Your task to perform on an android device: Open calendar and show me the third week of next month Image 0: 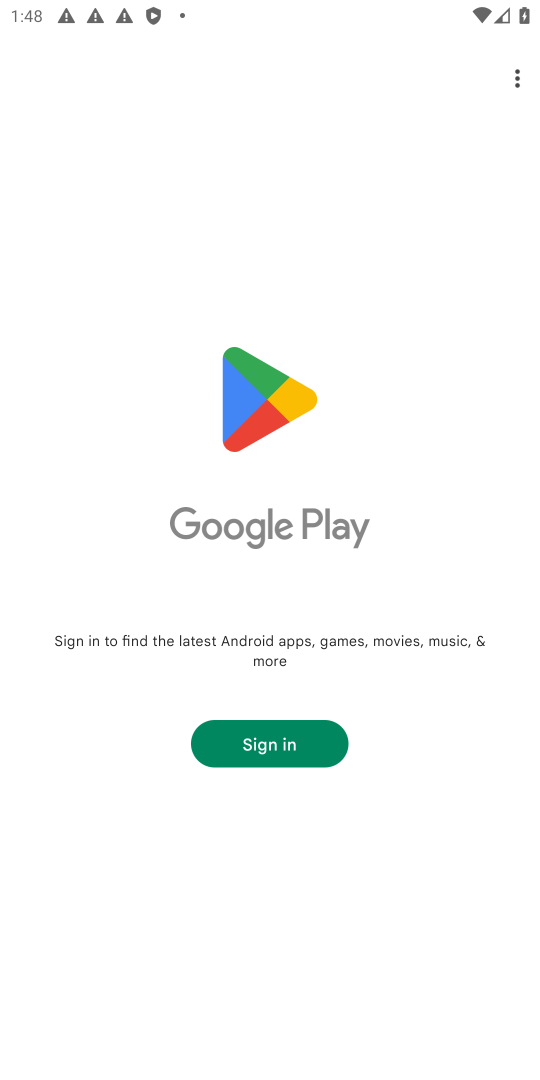
Step 0: press back button
Your task to perform on an android device: Open calendar and show me the third week of next month Image 1: 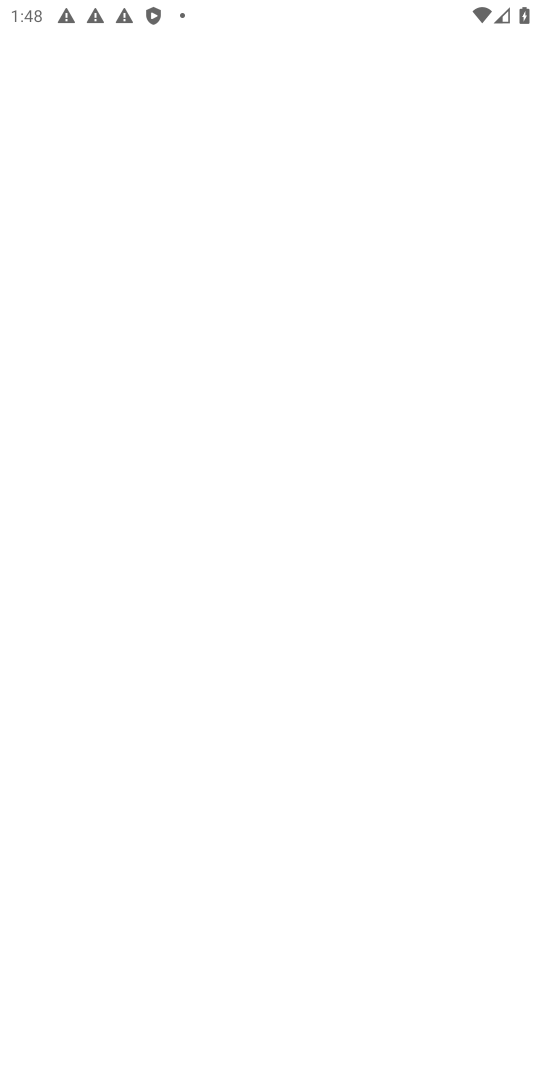
Step 1: press back button
Your task to perform on an android device: Open calendar and show me the third week of next month Image 2: 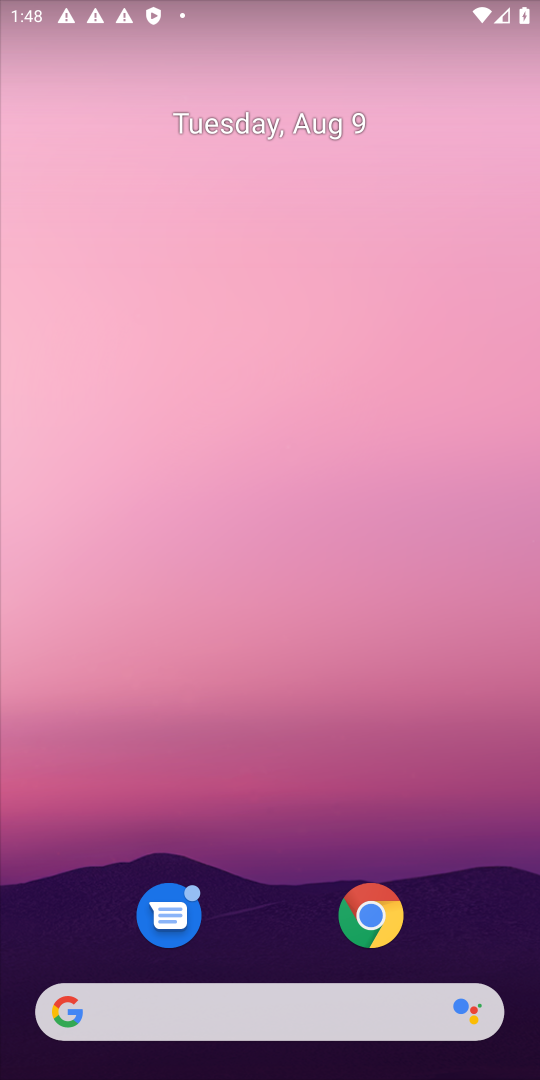
Step 2: drag from (217, 403) to (292, 215)
Your task to perform on an android device: Open calendar and show me the third week of next month Image 3: 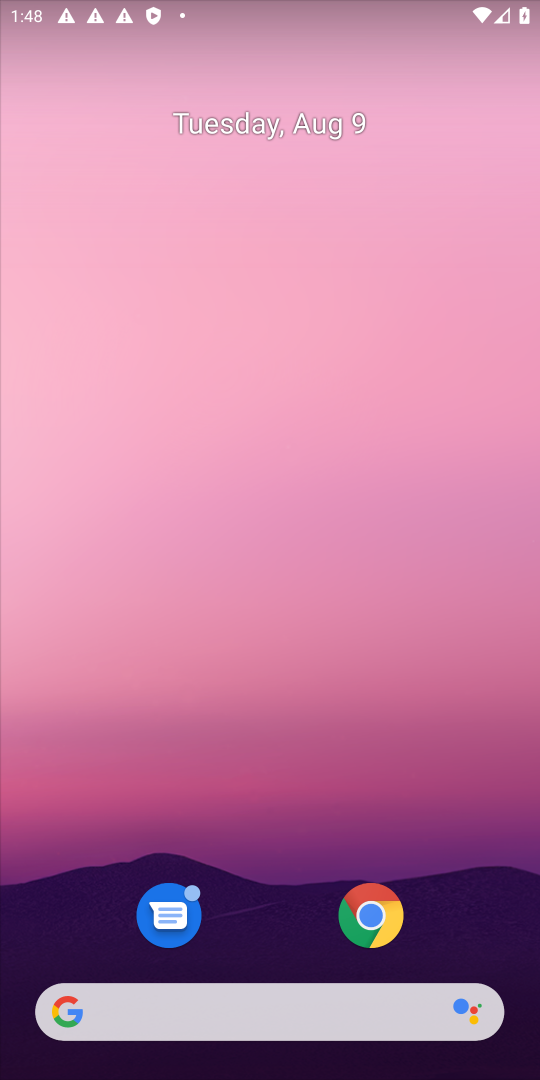
Step 3: drag from (210, 984) to (213, 237)
Your task to perform on an android device: Open calendar and show me the third week of next month Image 4: 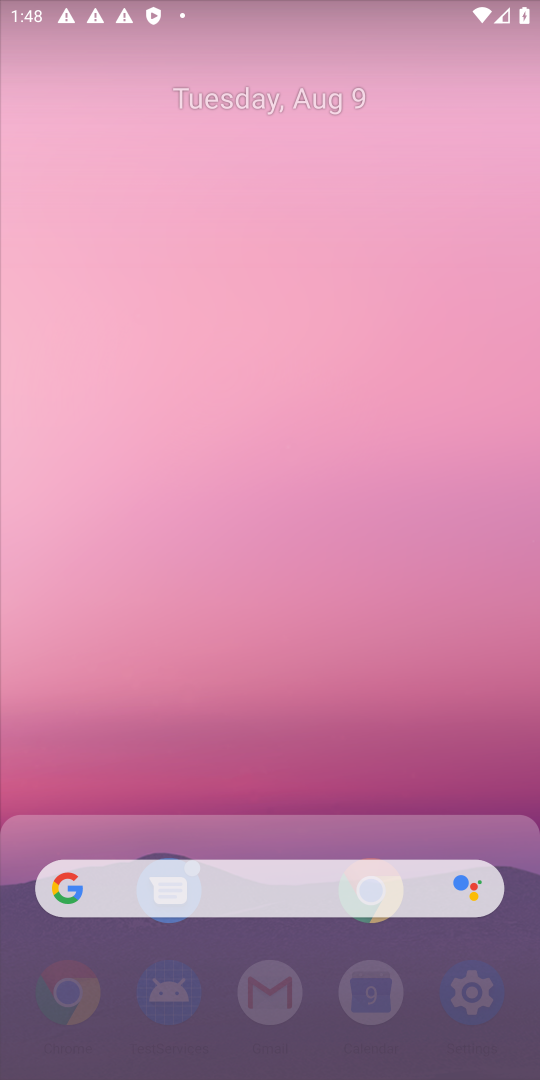
Step 4: drag from (247, 612) to (247, 256)
Your task to perform on an android device: Open calendar and show me the third week of next month Image 5: 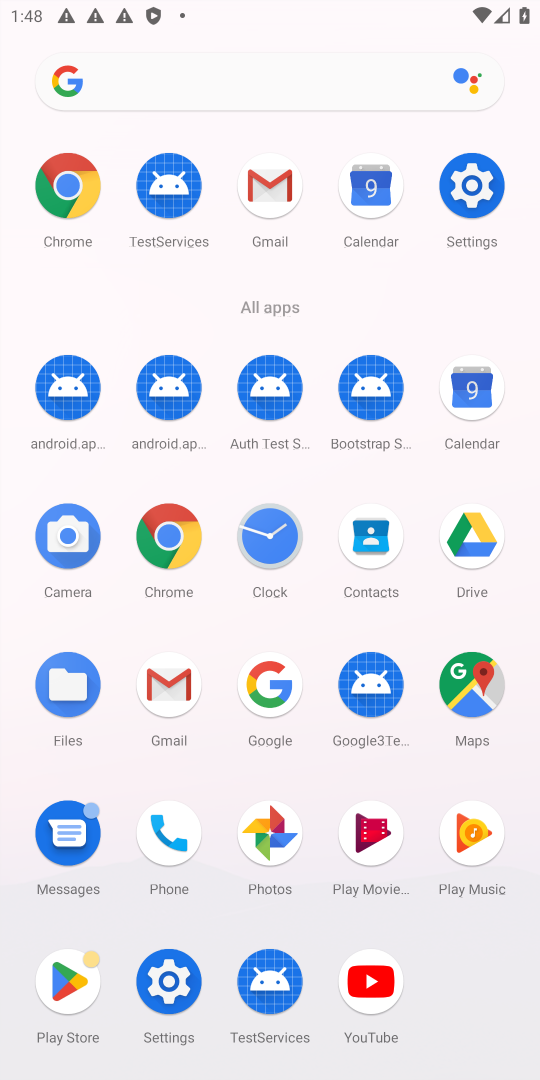
Step 5: click (480, 388)
Your task to perform on an android device: Open calendar and show me the third week of next month Image 6: 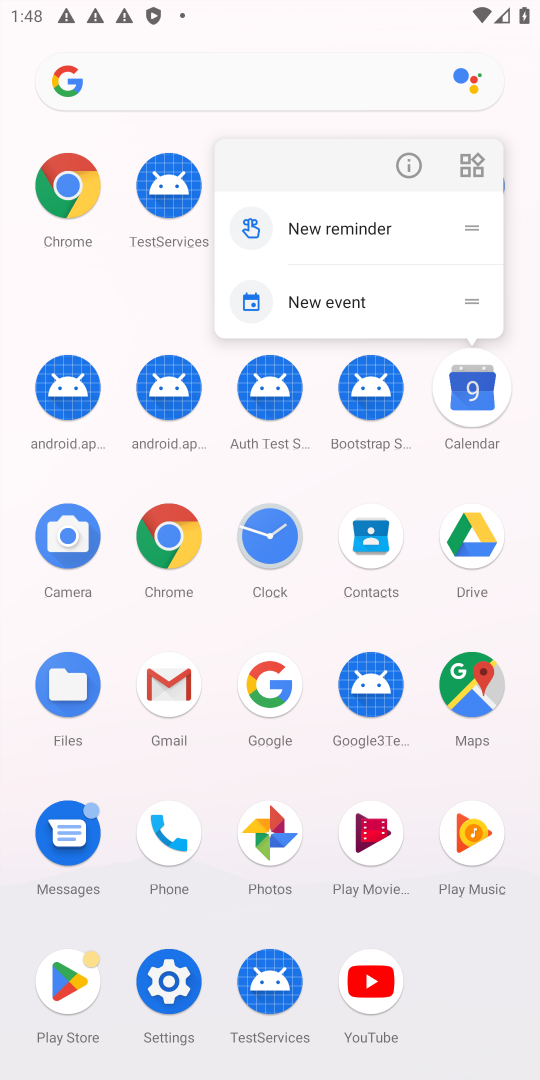
Step 6: click (483, 390)
Your task to perform on an android device: Open calendar and show me the third week of next month Image 7: 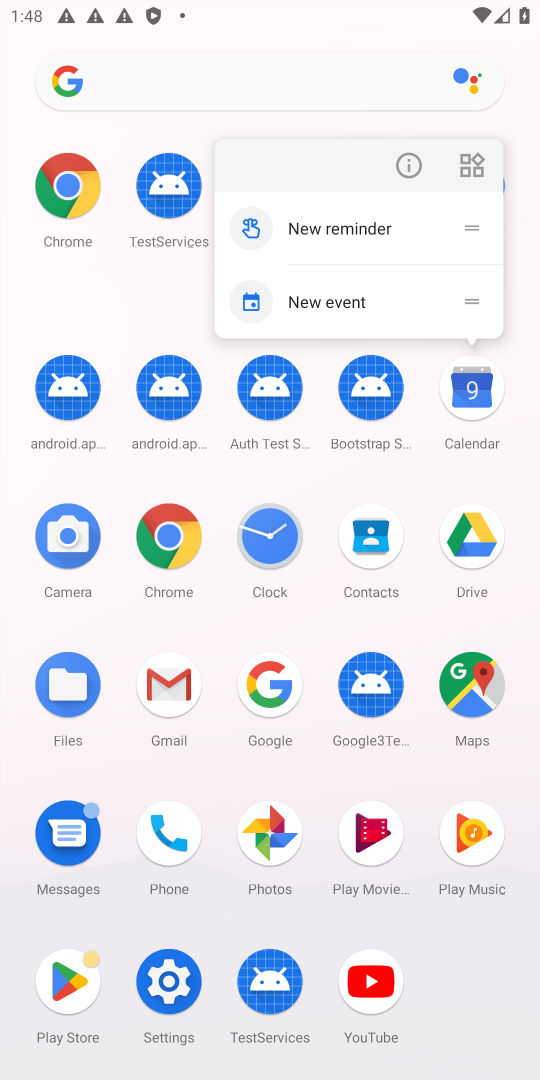
Step 7: click (483, 390)
Your task to perform on an android device: Open calendar and show me the third week of next month Image 8: 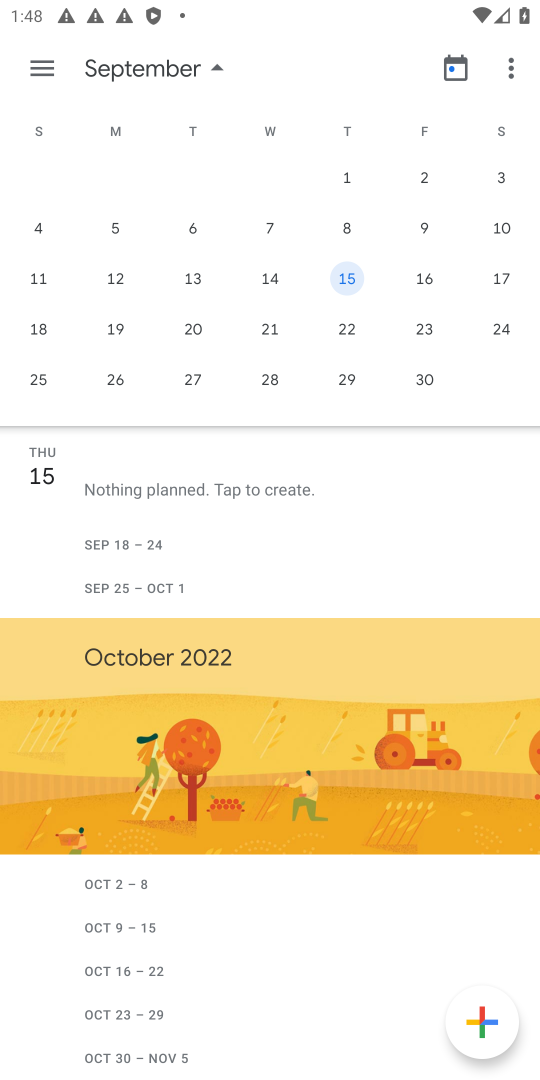
Step 8: task complete